Your task to perform on an android device: turn off data saver in the chrome app Image 0: 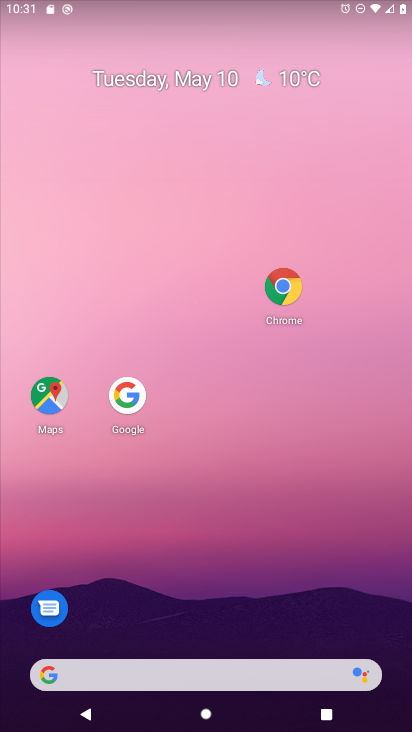
Step 0: drag from (153, 679) to (264, 307)
Your task to perform on an android device: turn off data saver in the chrome app Image 1: 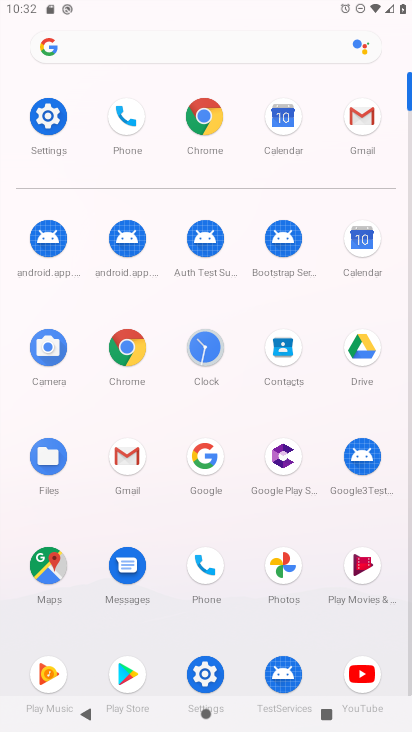
Step 1: click (212, 116)
Your task to perform on an android device: turn off data saver in the chrome app Image 2: 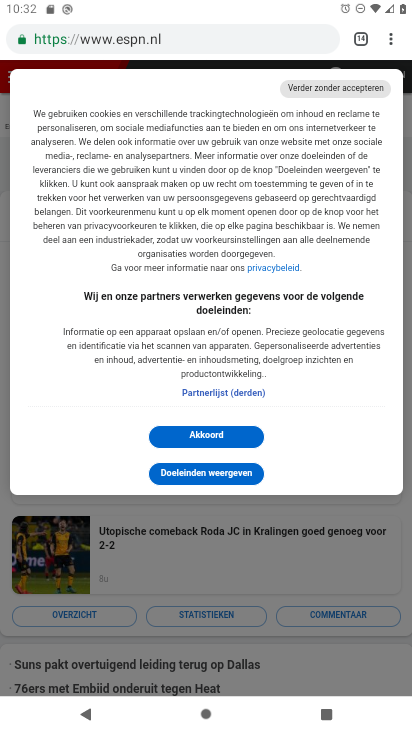
Step 2: drag from (388, 35) to (274, 469)
Your task to perform on an android device: turn off data saver in the chrome app Image 3: 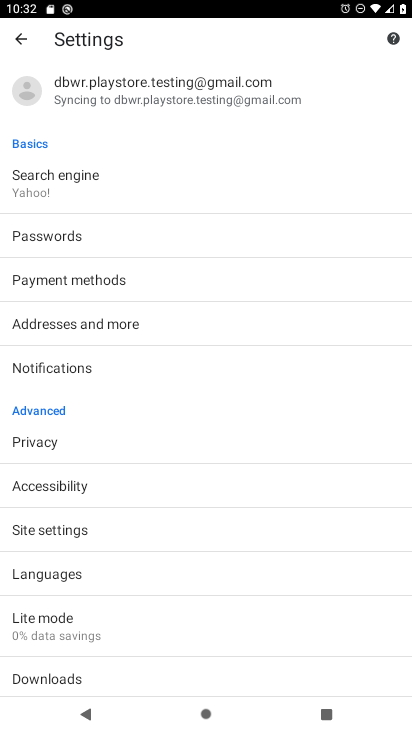
Step 3: click (67, 635)
Your task to perform on an android device: turn off data saver in the chrome app Image 4: 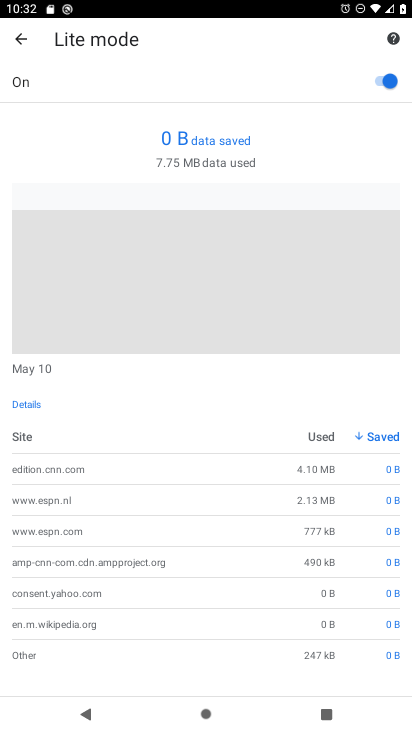
Step 4: task complete